Your task to perform on an android device: Open the calendar and show me this week's events? Image 0: 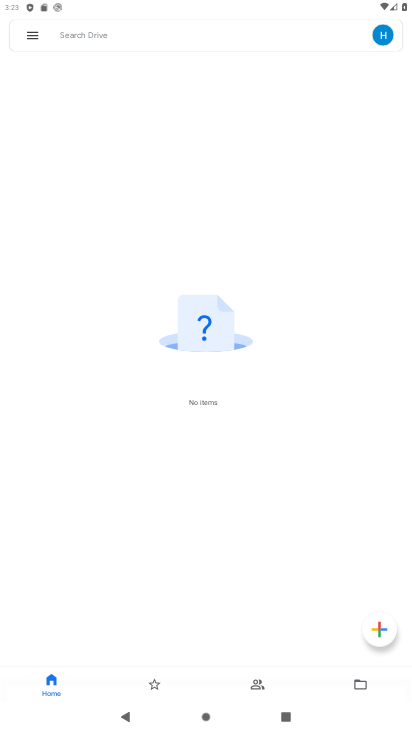
Step 0: press home button
Your task to perform on an android device: Open the calendar and show me this week's events? Image 1: 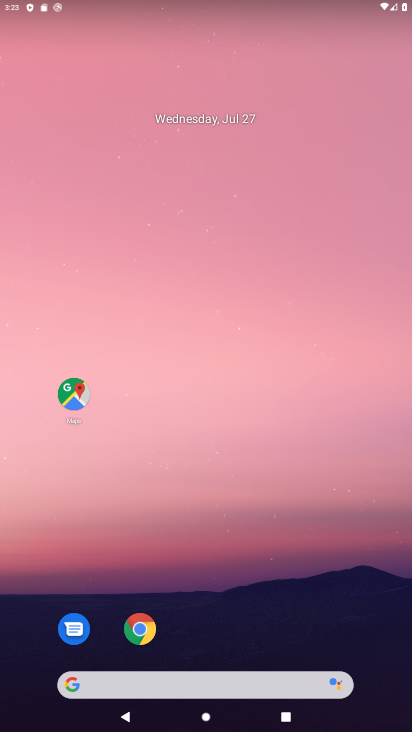
Step 1: drag from (330, 461) to (348, 95)
Your task to perform on an android device: Open the calendar and show me this week's events? Image 2: 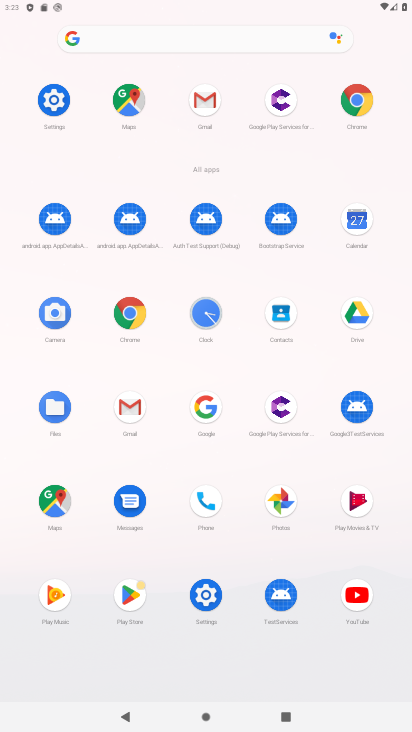
Step 2: click (355, 221)
Your task to perform on an android device: Open the calendar and show me this week's events? Image 3: 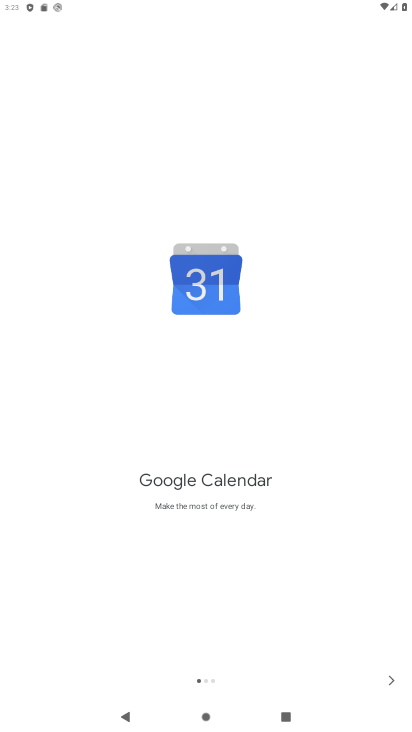
Step 3: click (392, 682)
Your task to perform on an android device: Open the calendar and show me this week's events? Image 4: 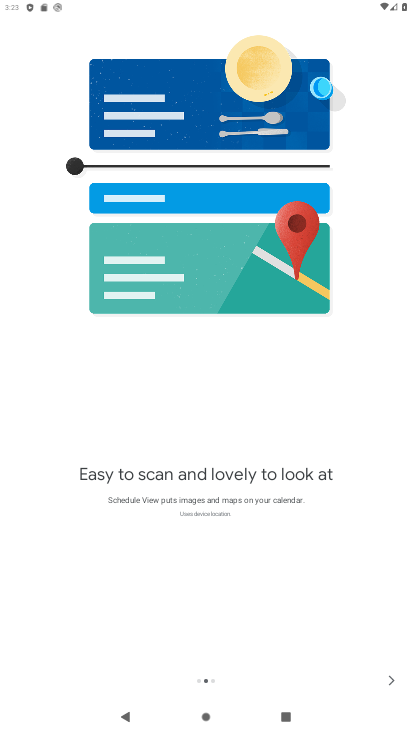
Step 4: click (393, 682)
Your task to perform on an android device: Open the calendar and show me this week's events? Image 5: 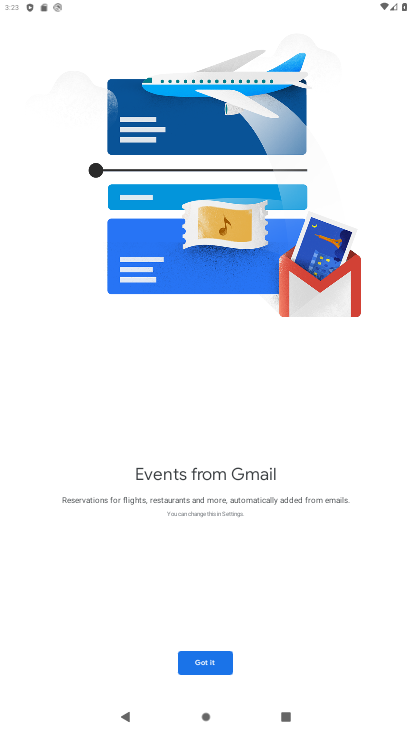
Step 5: click (213, 660)
Your task to perform on an android device: Open the calendar and show me this week's events? Image 6: 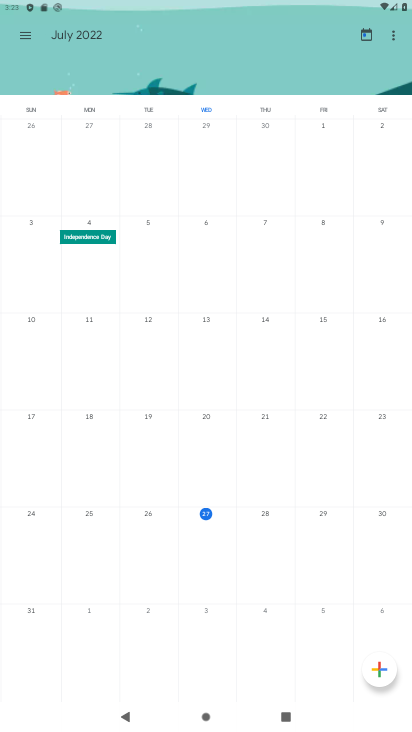
Step 6: click (206, 525)
Your task to perform on an android device: Open the calendar and show me this week's events? Image 7: 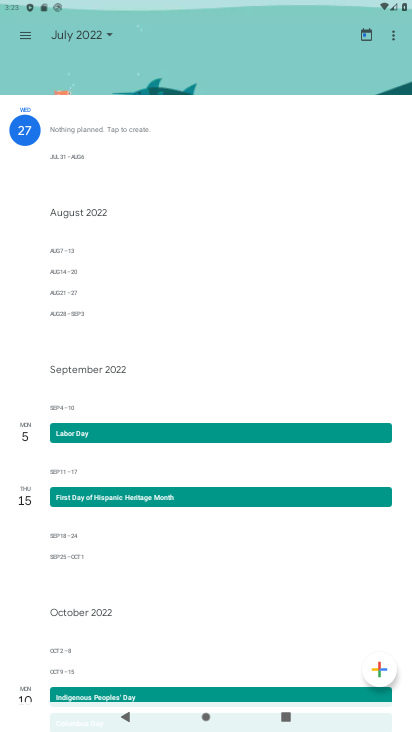
Step 7: click (32, 40)
Your task to perform on an android device: Open the calendar and show me this week's events? Image 8: 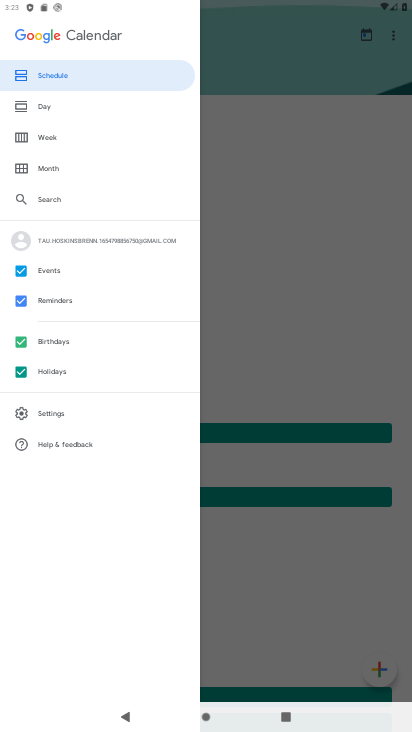
Step 8: click (49, 139)
Your task to perform on an android device: Open the calendar and show me this week's events? Image 9: 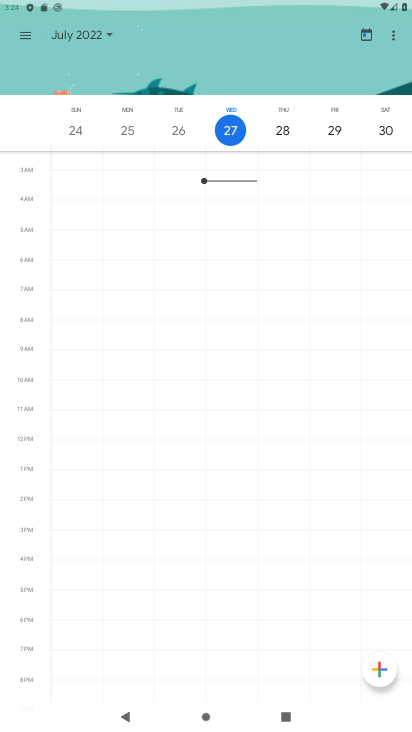
Step 9: task complete